Your task to perform on an android device: Open the web browser Image 0: 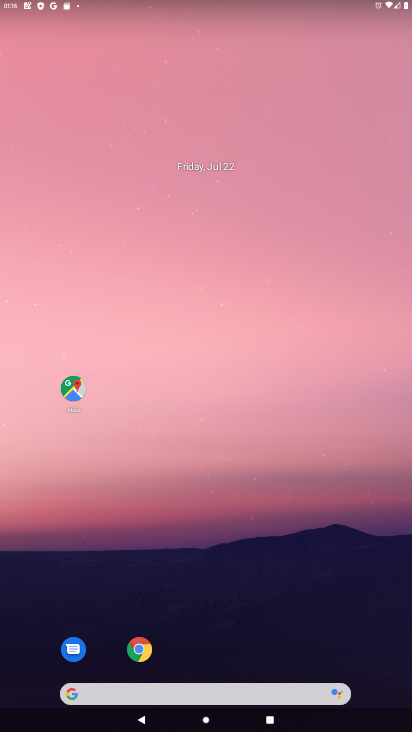
Step 0: drag from (314, 595) to (291, 326)
Your task to perform on an android device: Open the web browser Image 1: 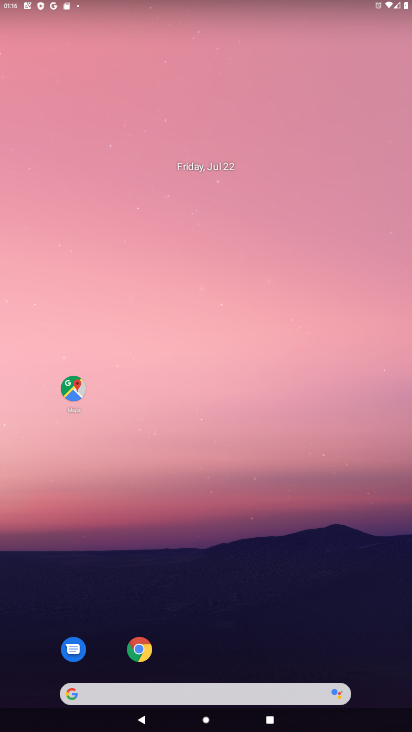
Step 1: click (139, 650)
Your task to perform on an android device: Open the web browser Image 2: 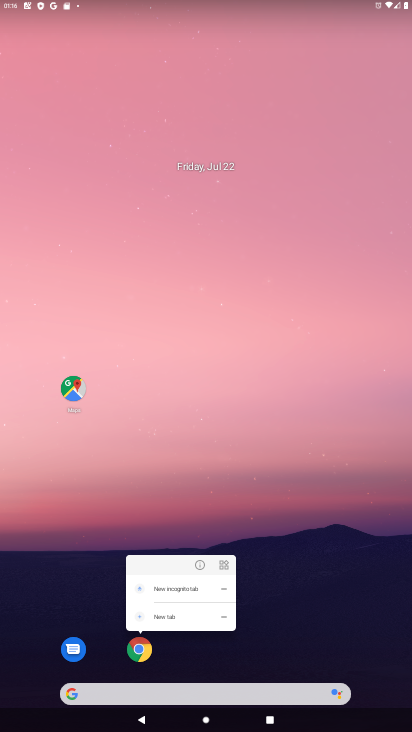
Step 2: click (139, 650)
Your task to perform on an android device: Open the web browser Image 3: 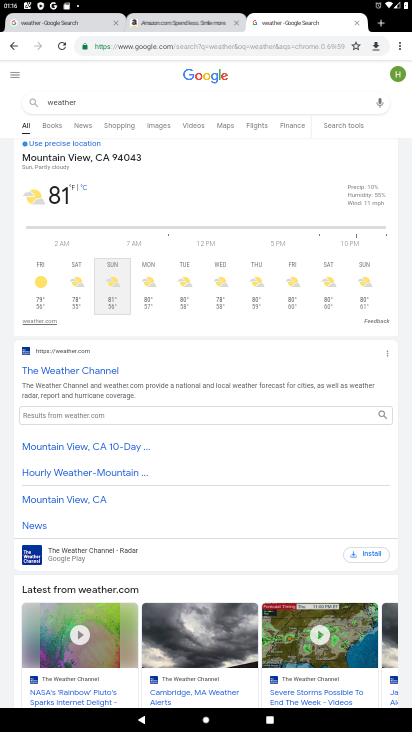
Step 3: task complete